Your task to perform on an android device: see creations saved in the google photos Image 0: 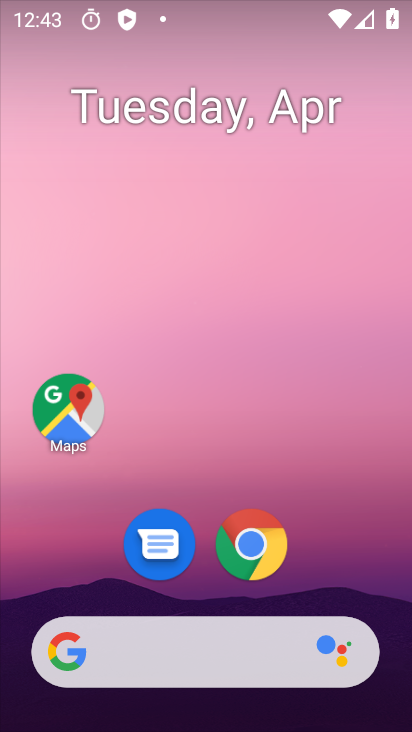
Step 0: drag from (405, 589) to (370, 39)
Your task to perform on an android device: see creations saved in the google photos Image 1: 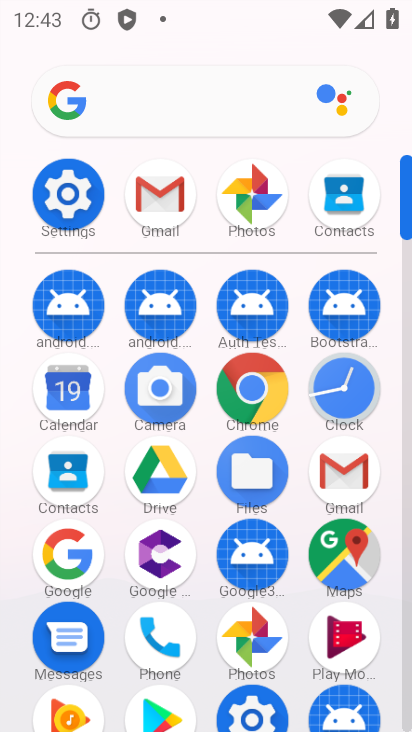
Step 1: click (253, 200)
Your task to perform on an android device: see creations saved in the google photos Image 2: 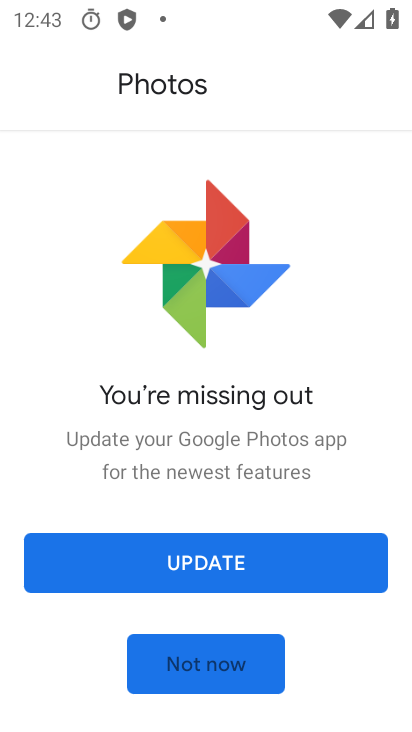
Step 2: click (223, 565)
Your task to perform on an android device: see creations saved in the google photos Image 3: 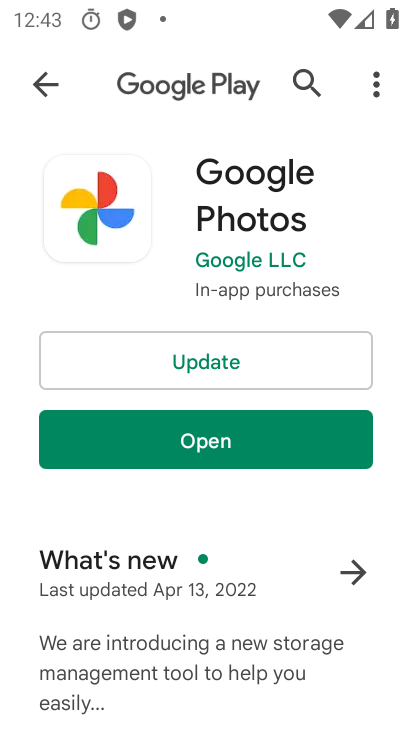
Step 3: click (211, 446)
Your task to perform on an android device: see creations saved in the google photos Image 4: 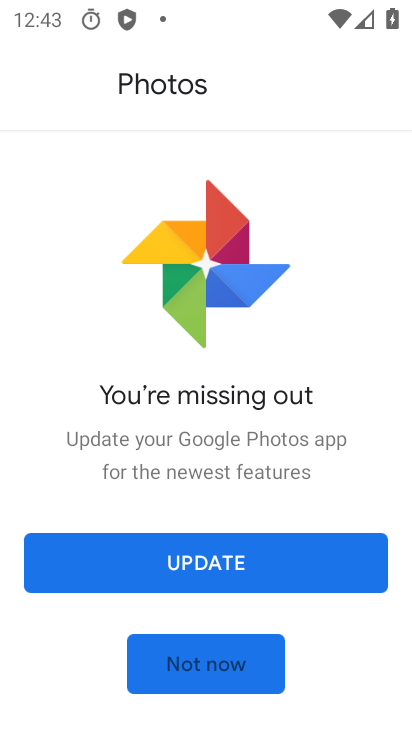
Step 4: click (224, 570)
Your task to perform on an android device: see creations saved in the google photos Image 5: 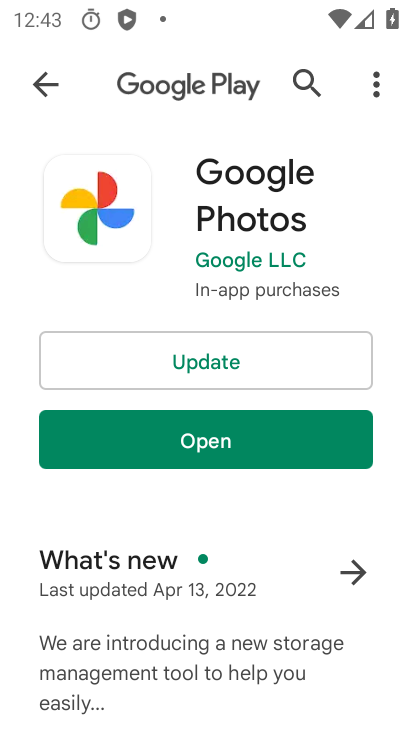
Step 5: click (223, 459)
Your task to perform on an android device: see creations saved in the google photos Image 6: 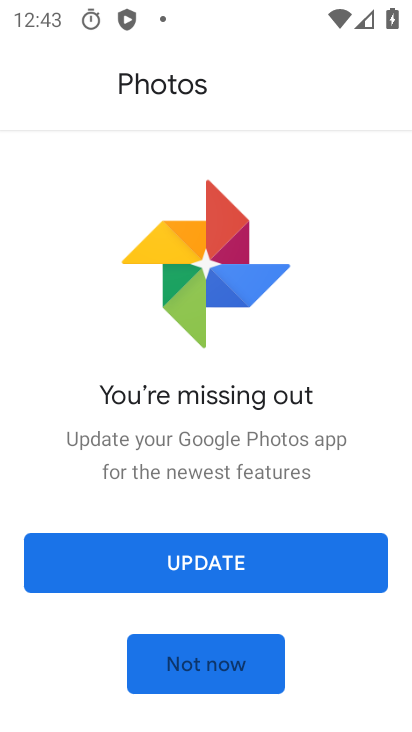
Step 6: click (216, 667)
Your task to perform on an android device: see creations saved in the google photos Image 7: 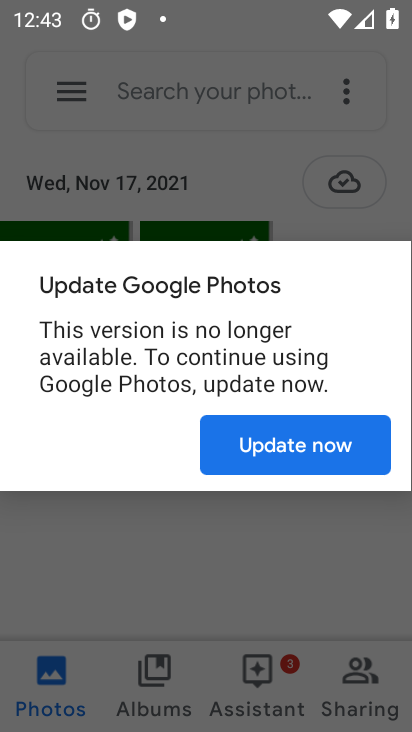
Step 7: click (272, 451)
Your task to perform on an android device: see creations saved in the google photos Image 8: 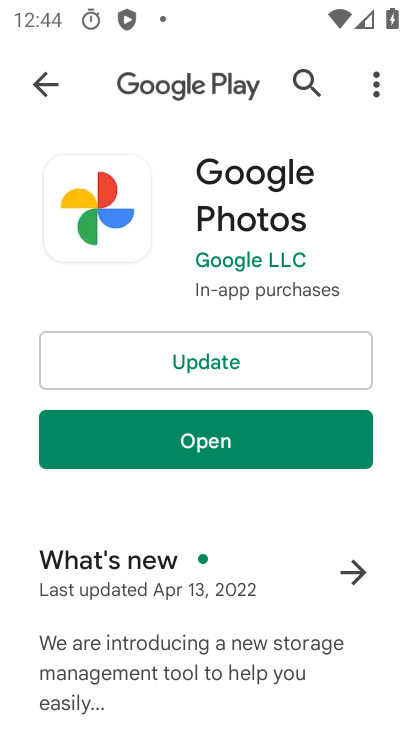
Step 8: click (210, 440)
Your task to perform on an android device: see creations saved in the google photos Image 9: 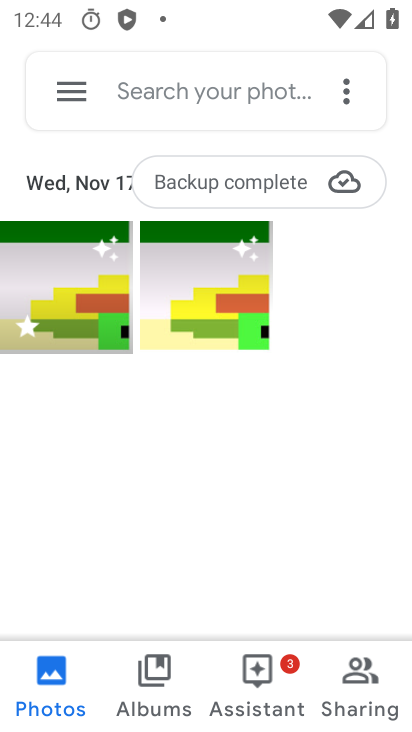
Step 9: click (138, 88)
Your task to perform on an android device: see creations saved in the google photos Image 10: 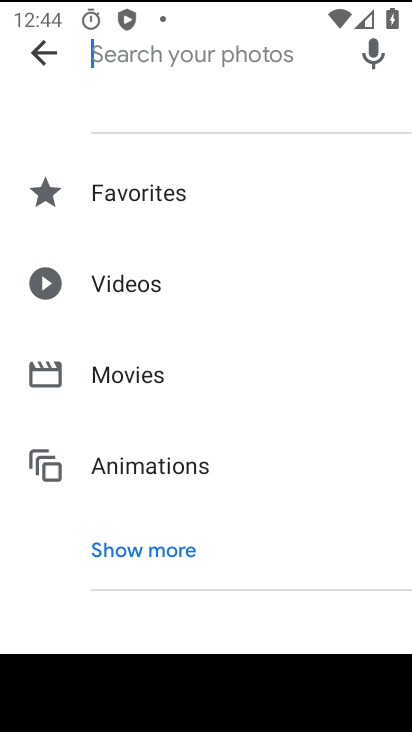
Step 10: click (150, 551)
Your task to perform on an android device: see creations saved in the google photos Image 11: 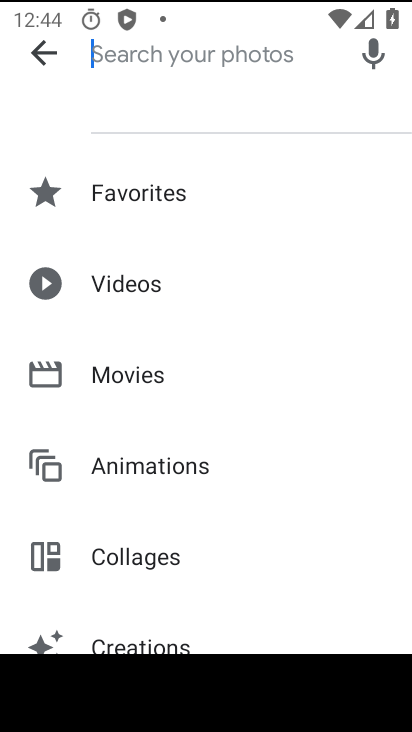
Step 11: drag from (223, 581) to (222, 302)
Your task to perform on an android device: see creations saved in the google photos Image 12: 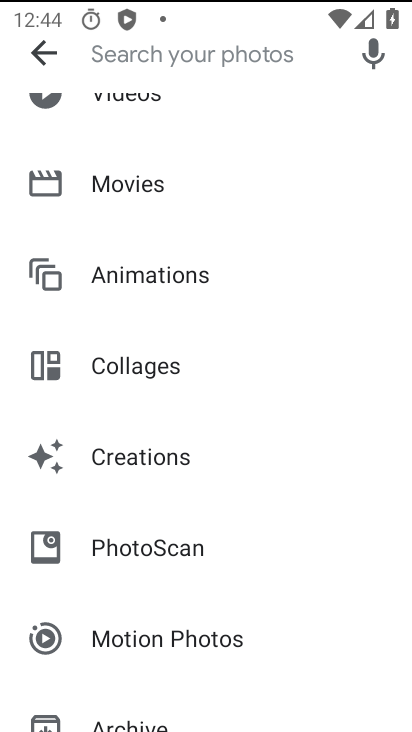
Step 12: click (149, 461)
Your task to perform on an android device: see creations saved in the google photos Image 13: 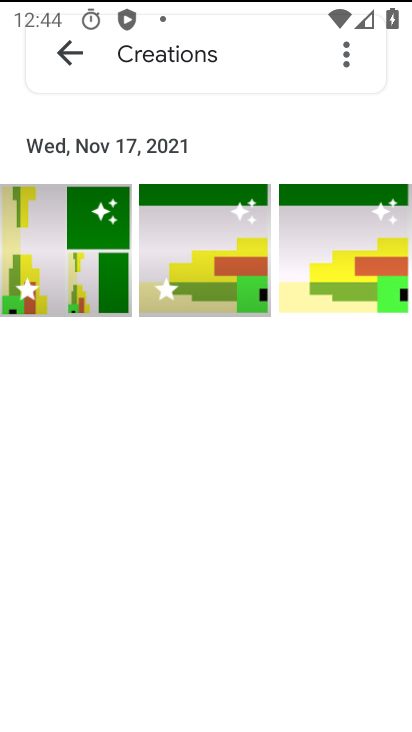
Step 13: task complete